Your task to perform on an android device: Open settings Image 0: 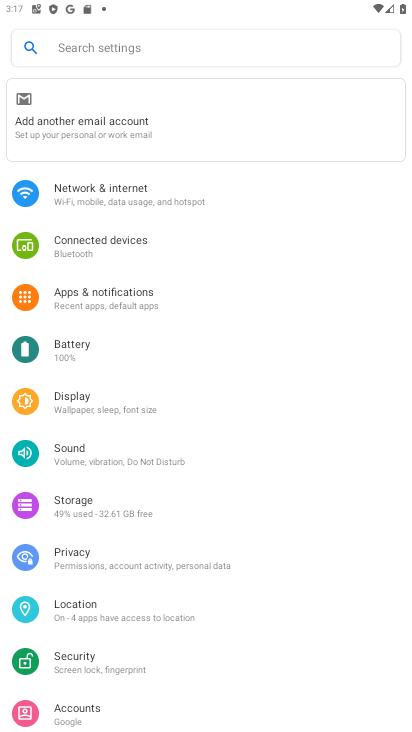
Step 0: click (93, 190)
Your task to perform on an android device: Open settings Image 1: 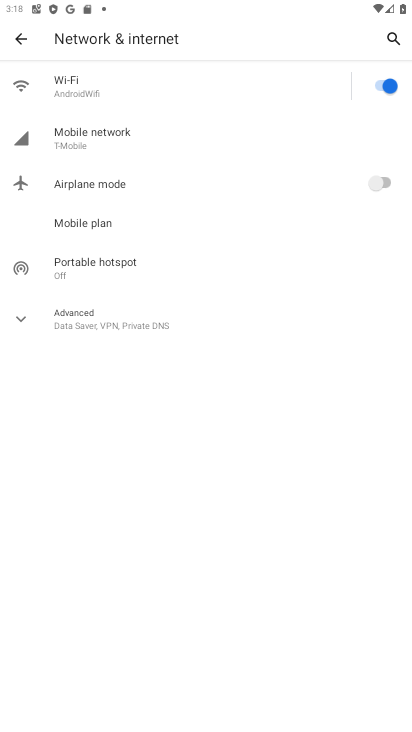
Step 1: task complete